Your task to perform on an android device: allow notifications from all sites in the chrome app Image 0: 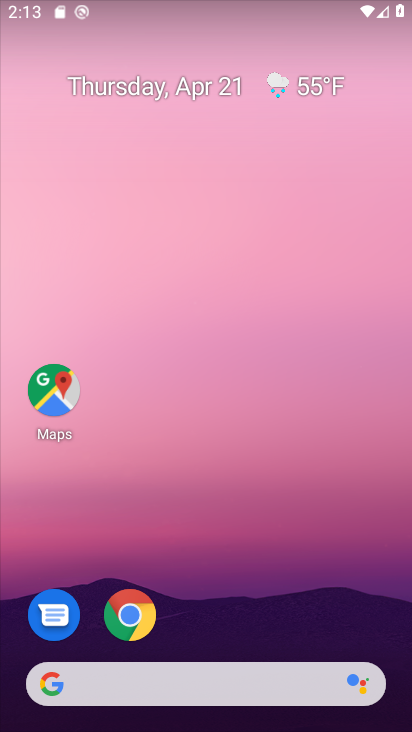
Step 0: click (136, 604)
Your task to perform on an android device: allow notifications from all sites in the chrome app Image 1: 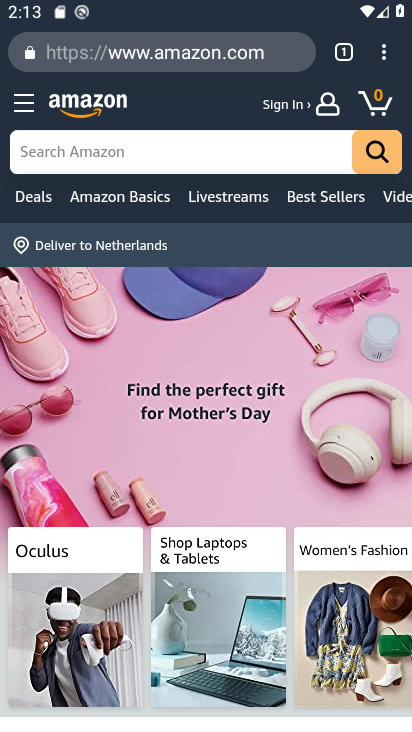
Step 1: click (388, 60)
Your task to perform on an android device: allow notifications from all sites in the chrome app Image 2: 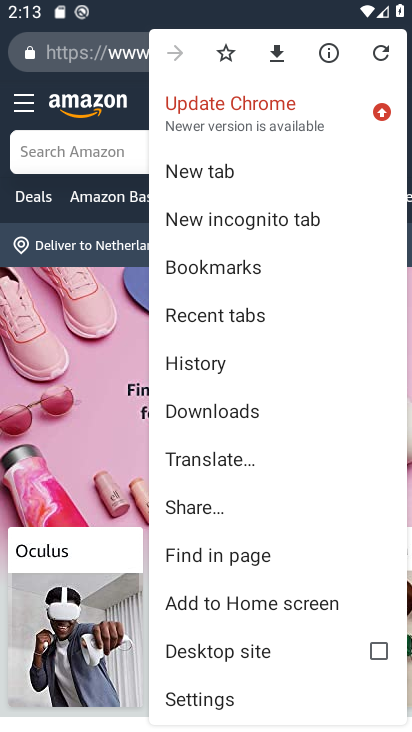
Step 2: drag from (199, 521) to (202, 323)
Your task to perform on an android device: allow notifications from all sites in the chrome app Image 3: 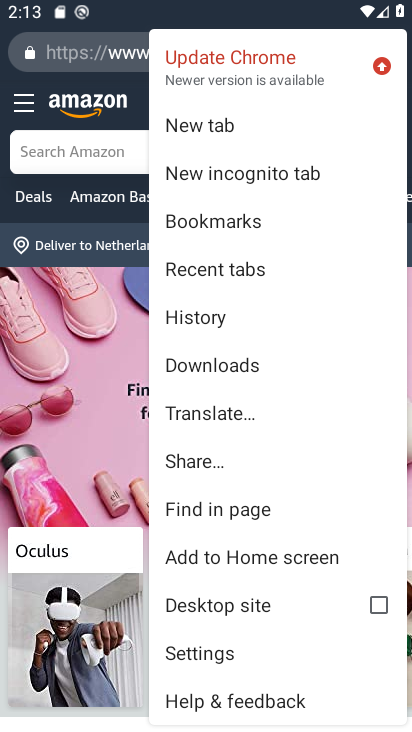
Step 3: click (207, 654)
Your task to perform on an android device: allow notifications from all sites in the chrome app Image 4: 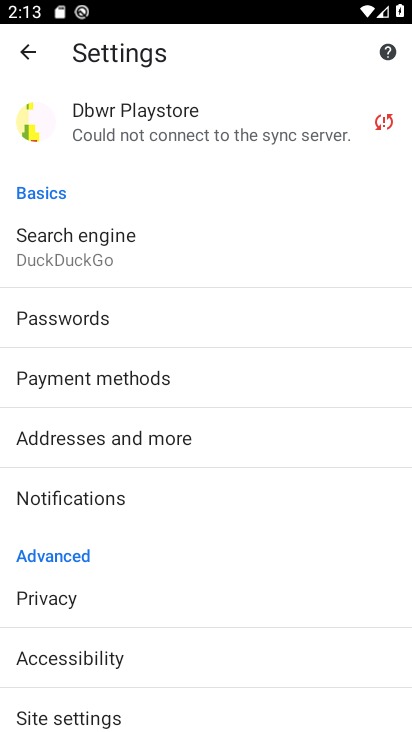
Step 4: click (82, 489)
Your task to perform on an android device: allow notifications from all sites in the chrome app Image 5: 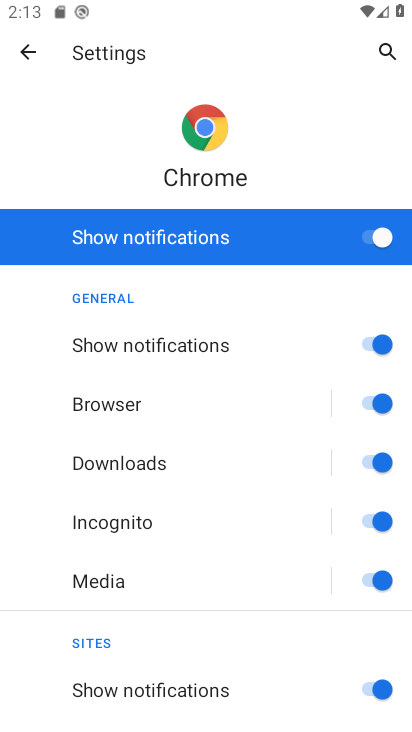
Step 5: task complete